Your task to perform on an android device: toggle airplane mode Image 0: 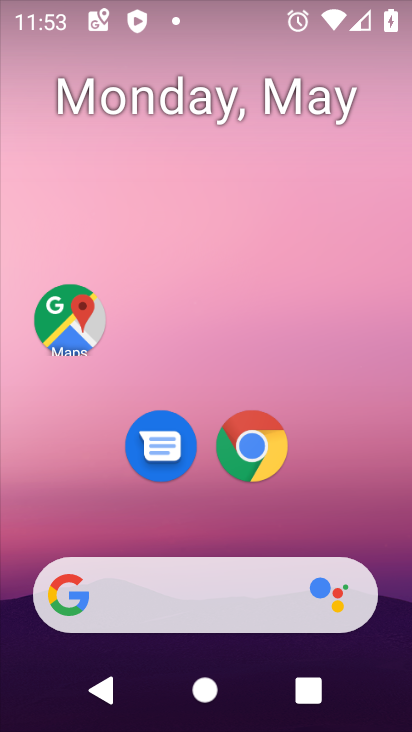
Step 0: drag from (263, 500) to (253, 222)
Your task to perform on an android device: toggle airplane mode Image 1: 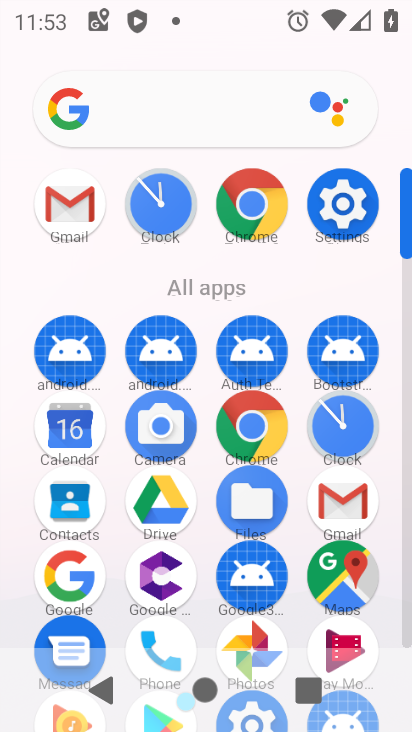
Step 1: click (326, 202)
Your task to perform on an android device: toggle airplane mode Image 2: 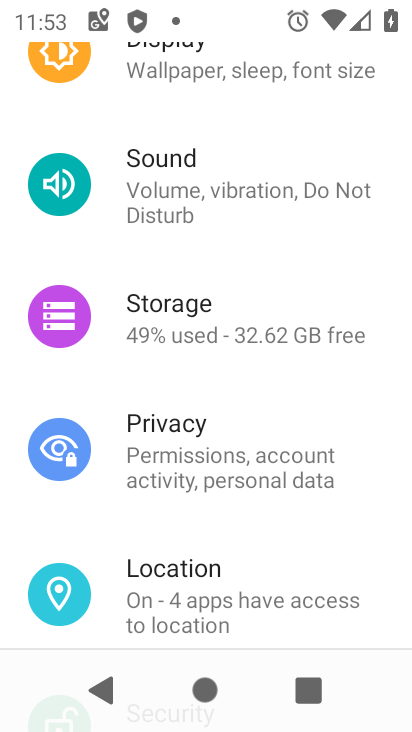
Step 2: drag from (120, 191) to (203, 543)
Your task to perform on an android device: toggle airplane mode Image 3: 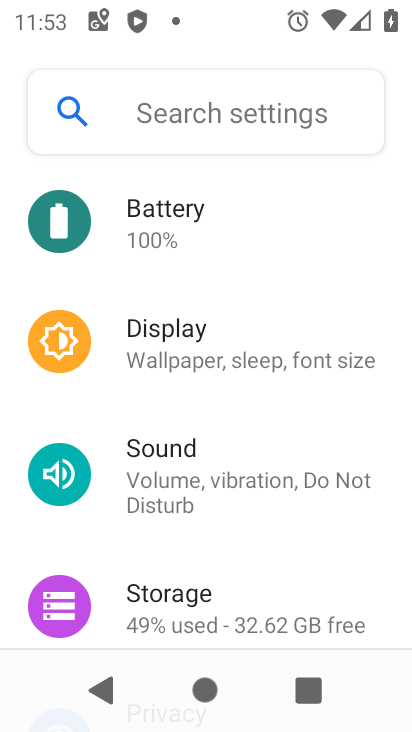
Step 3: drag from (254, 172) to (261, 467)
Your task to perform on an android device: toggle airplane mode Image 4: 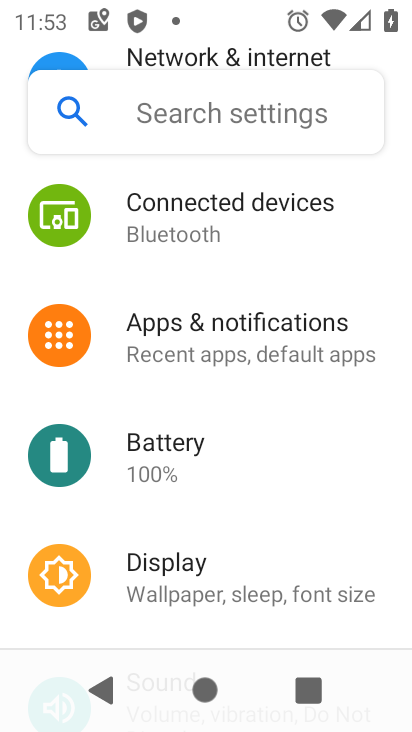
Step 4: drag from (244, 207) to (250, 473)
Your task to perform on an android device: toggle airplane mode Image 5: 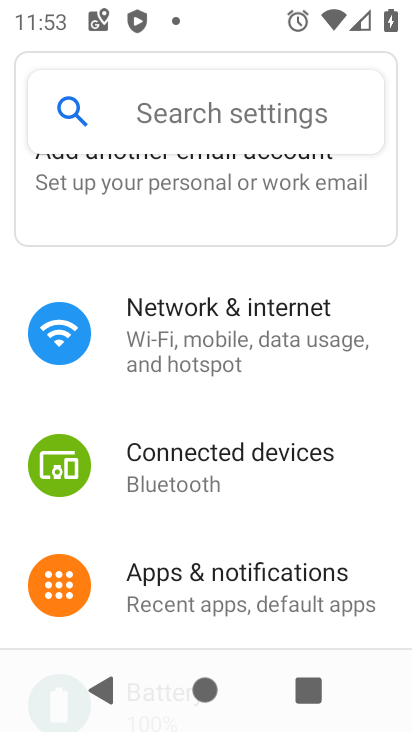
Step 5: click (225, 293)
Your task to perform on an android device: toggle airplane mode Image 6: 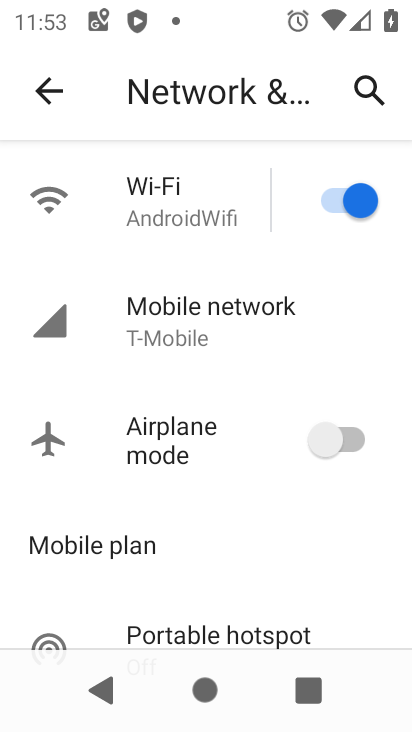
Step 6: click (338, 446)
Your task to perform on an android device: toggle airplane mode Image 7: 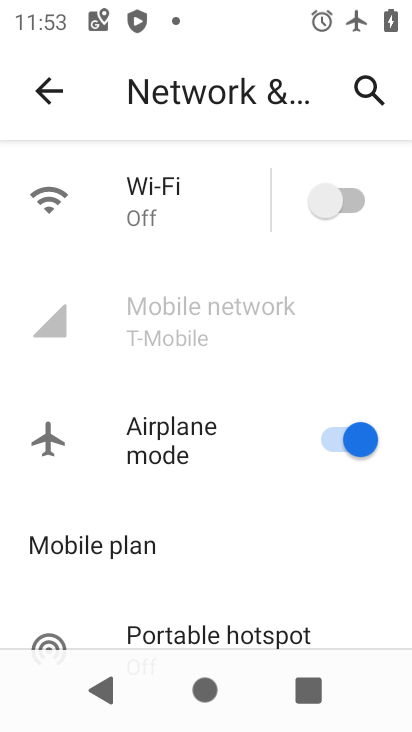
Step 7: task complete